Your task to perform on an android device: toggle wifi Image 0: 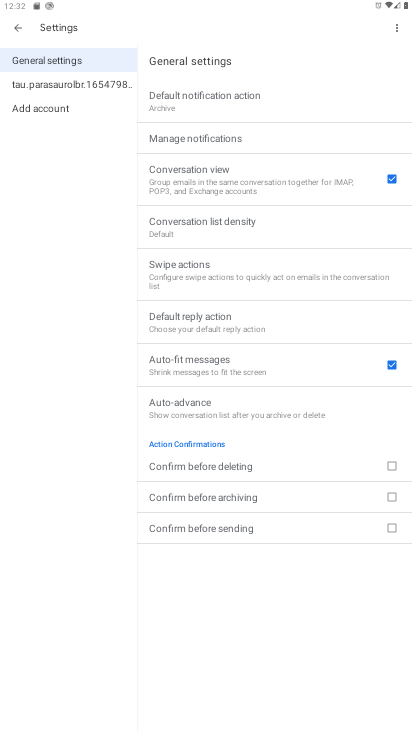
Step 0: drag from (230, 4) to (228, 492)
Your task to perform on an android device: toggle wifi Image 1: 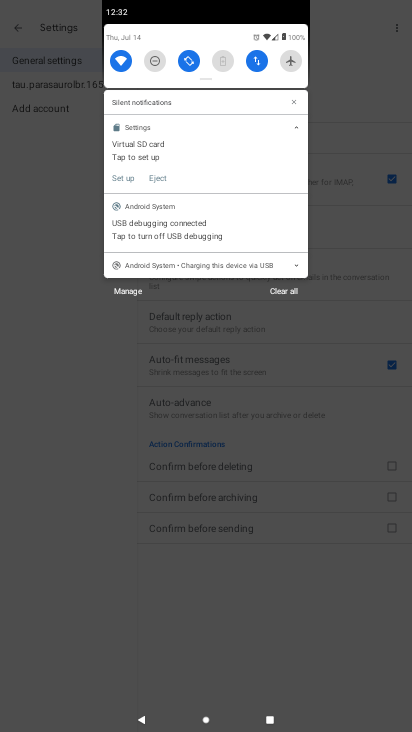
Step 1: drag from (189, 70) to (214, 384)
Your task to perform on an android device: toggle wifi Image 2: 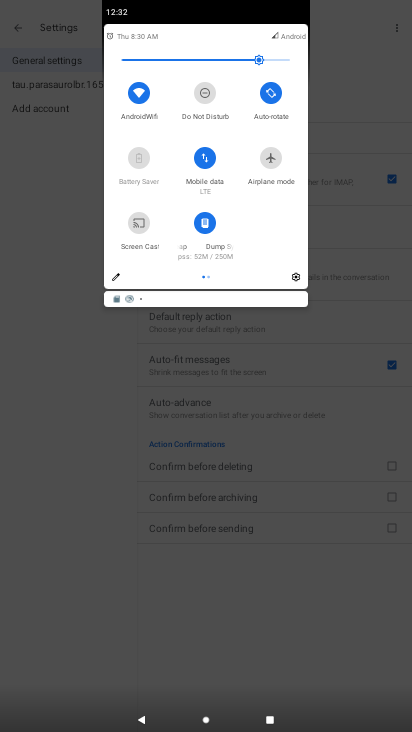
Step 2: click (140, 93)
Your task to perform on an android device: toggle wifi Image 3: 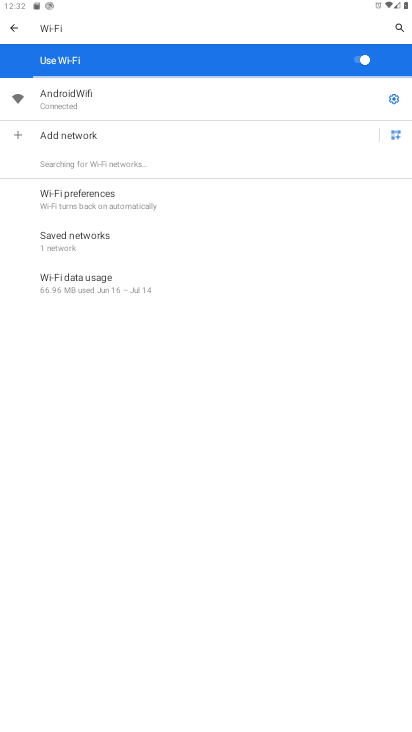
Step 3: click (361, 61)
Your task to perform on an android device: toggle wifi Image 4: 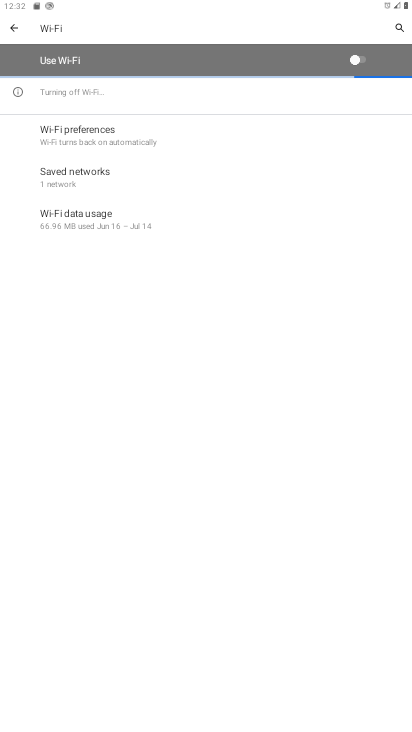
Step 4: task complete